Your task to perform on an android device: open app "PlayWell" (install if not already installed) and go to login screen Image 0: 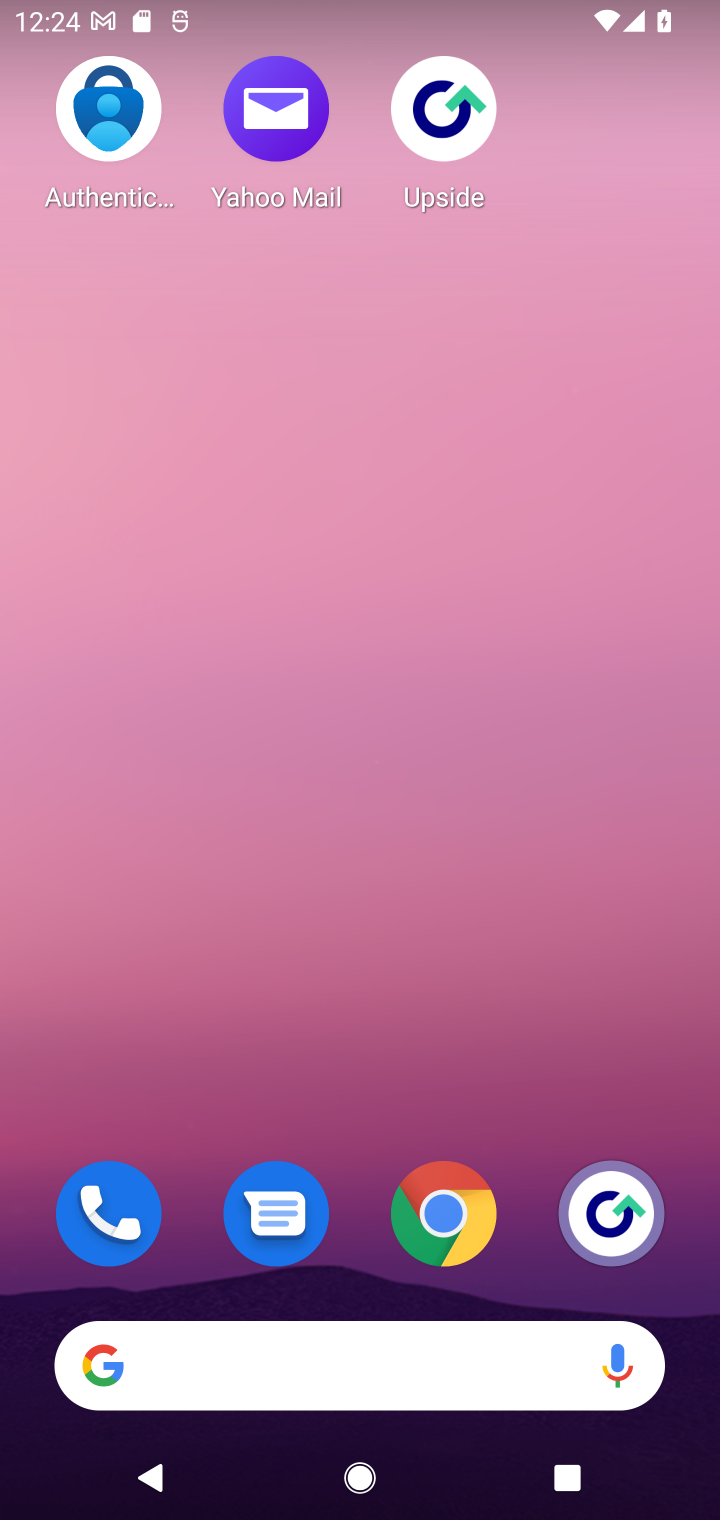
Step 0: drag from (336, 1384) to (249, 202)
Your task to perform on an android device: open app "PlayWell" (install if not already installed) and go to login screen Image 1: 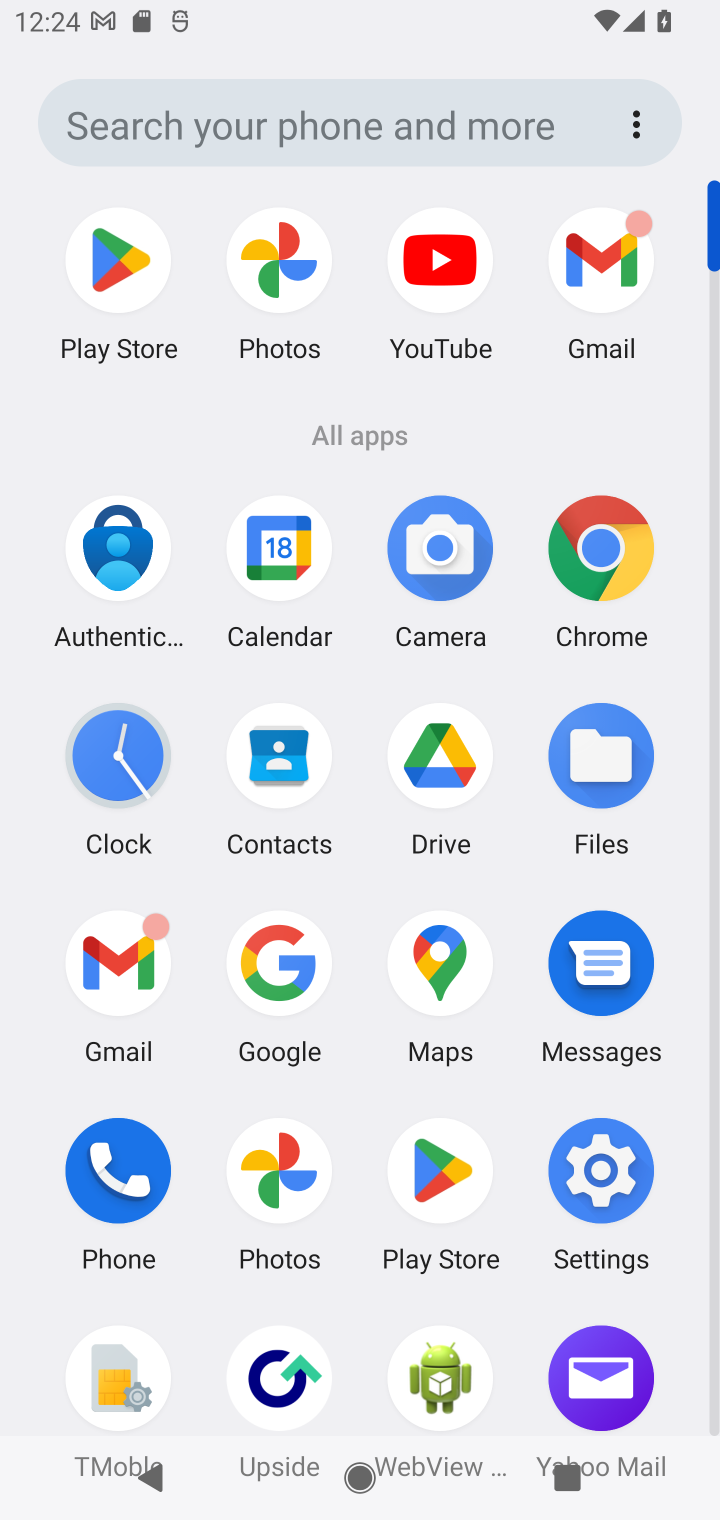
Step 1: click (116, 266)
Your task to perform on an android device: open app "PlayWell" (install if not already installed) and go to login screen Image 2: 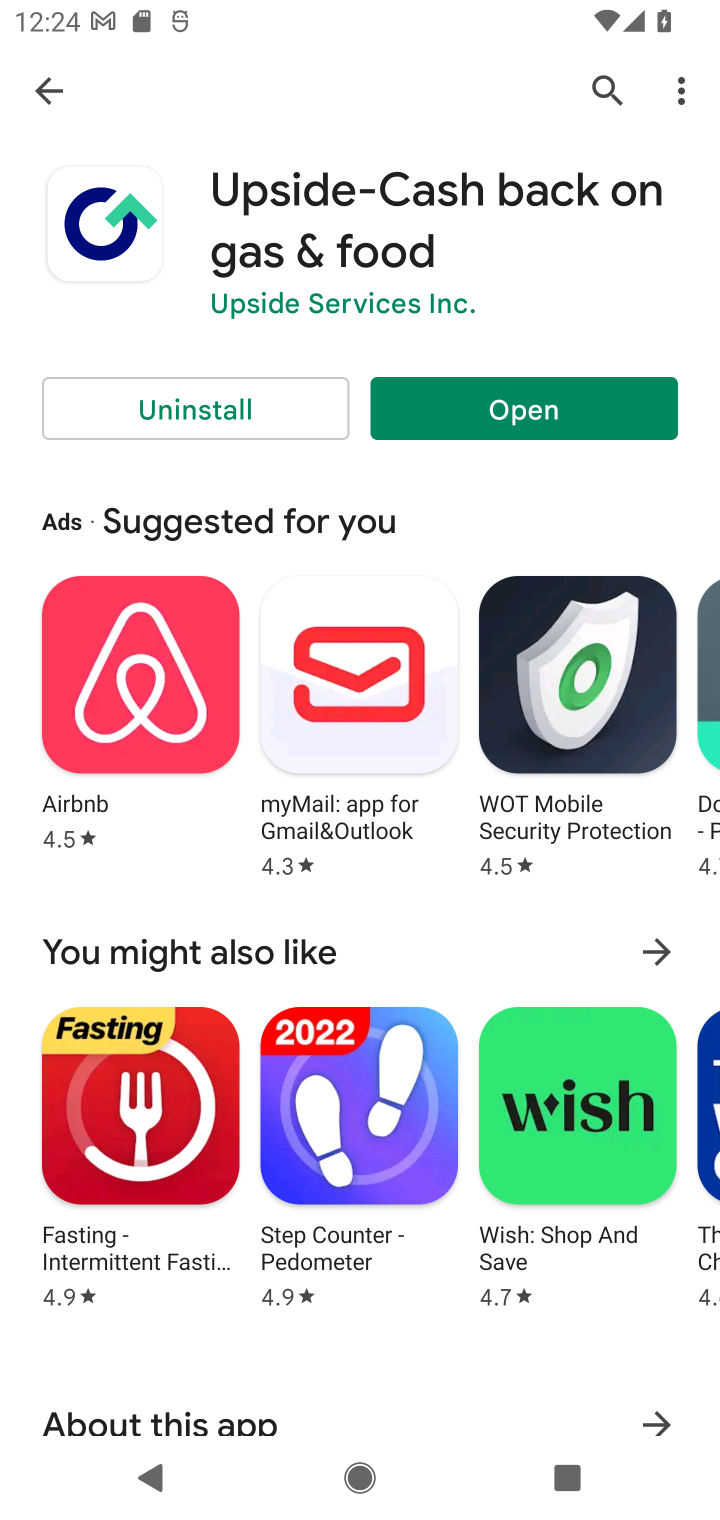
Step 2: press back button
Your task to perform on an android device: open app "PlayWell" (install if not already installed) and go to login screen Image 3: 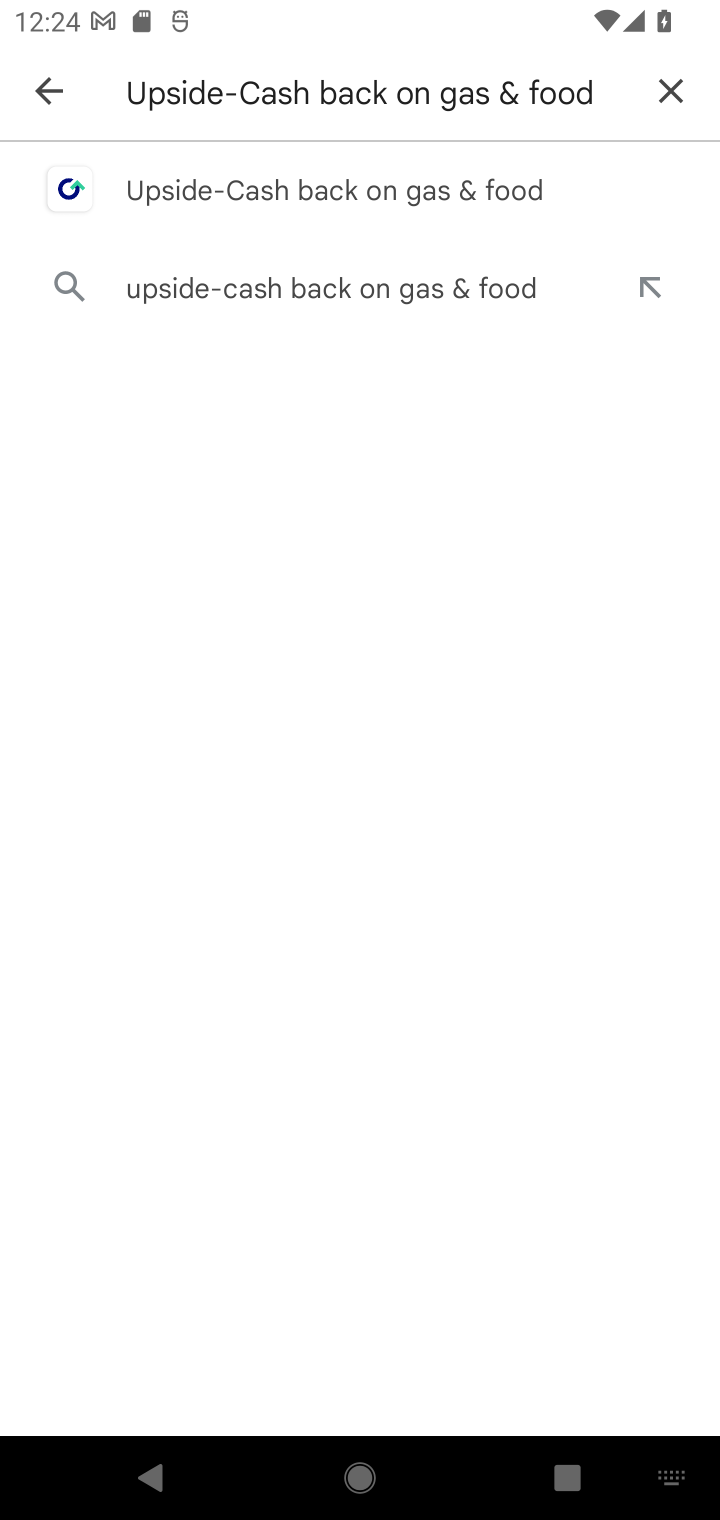
Step 3: click (672, 91)
Your task to perform on an android device: open app "PlayWell" (install if not already installed) and go to login screen Image 4: 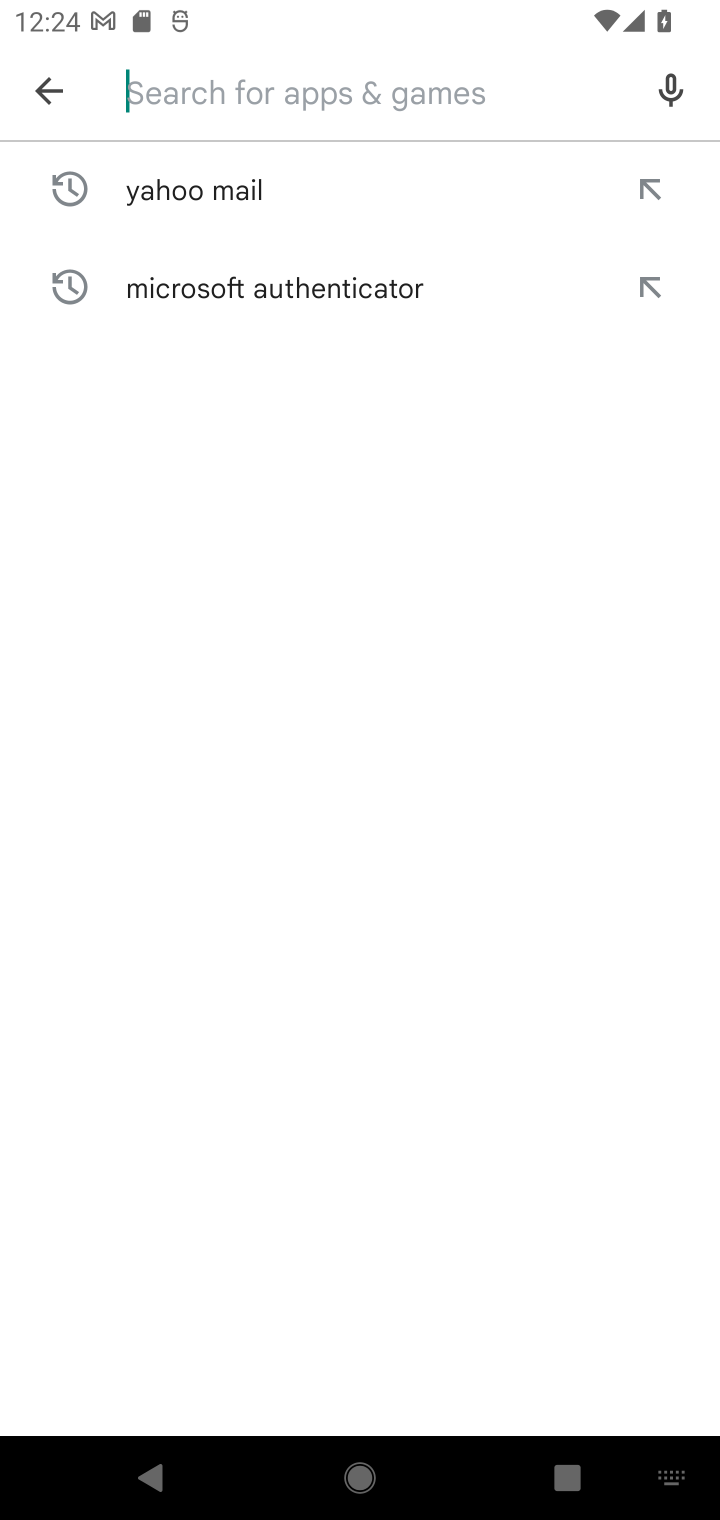
Step 4: press back button
Your task to perform on an android device: open app "PlayWell" (install if not already installed) and go to login screen Image 5: 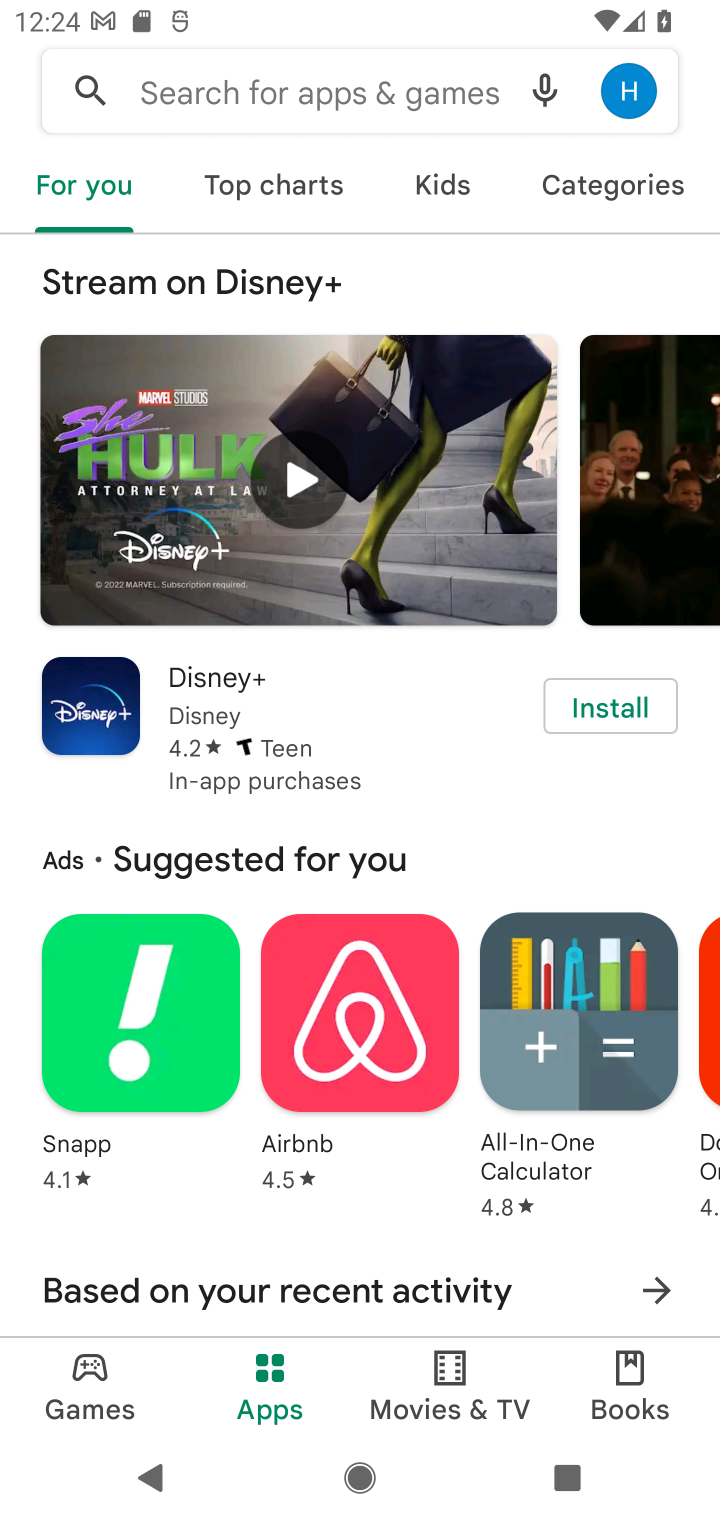
Step 5: press back button
Your task to perform on an android device: open app "PlayWell" (install if not already installed) and go to login screen Image 6: 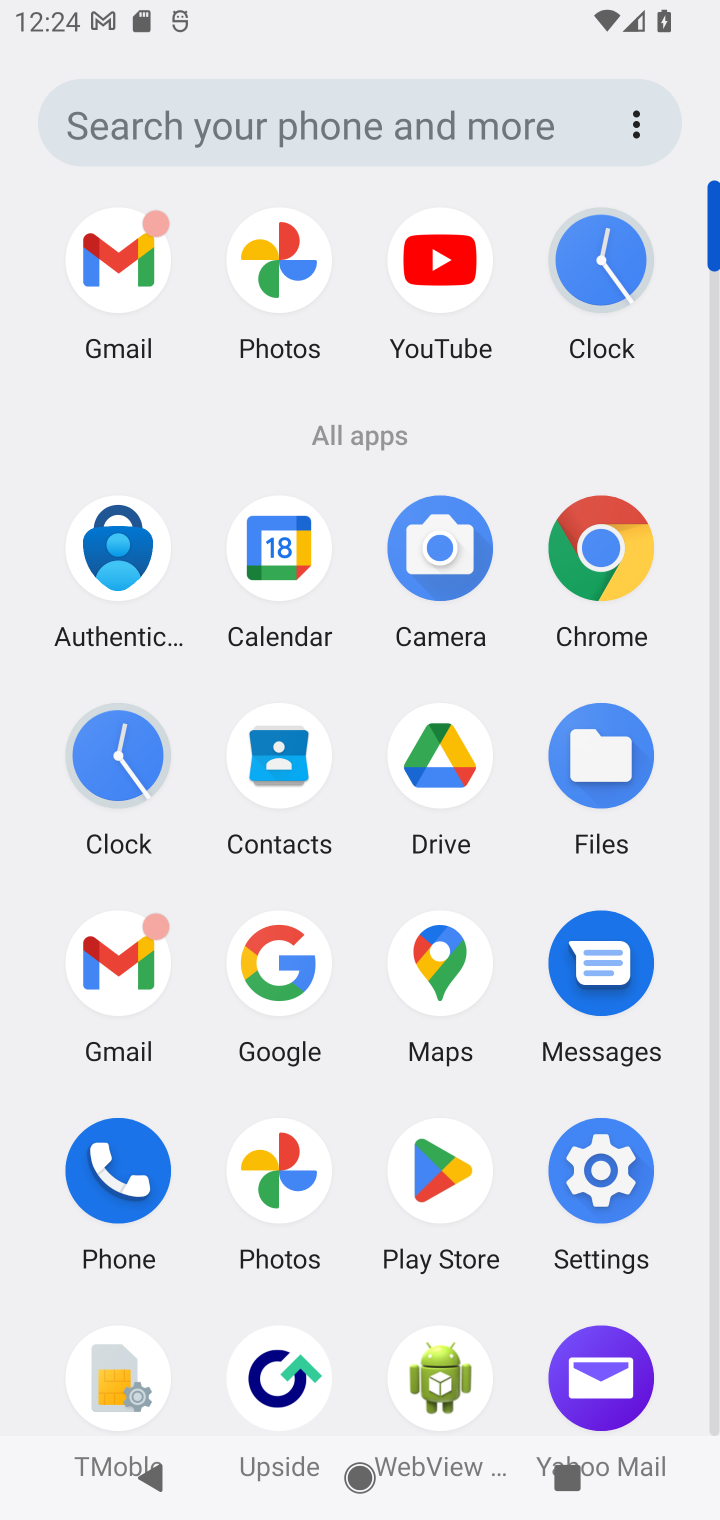
Step 6: click (454, 1175)
Your task to perform on an android device: open app "PlayWell" (install if not already installed) and go to login screen Image 7: 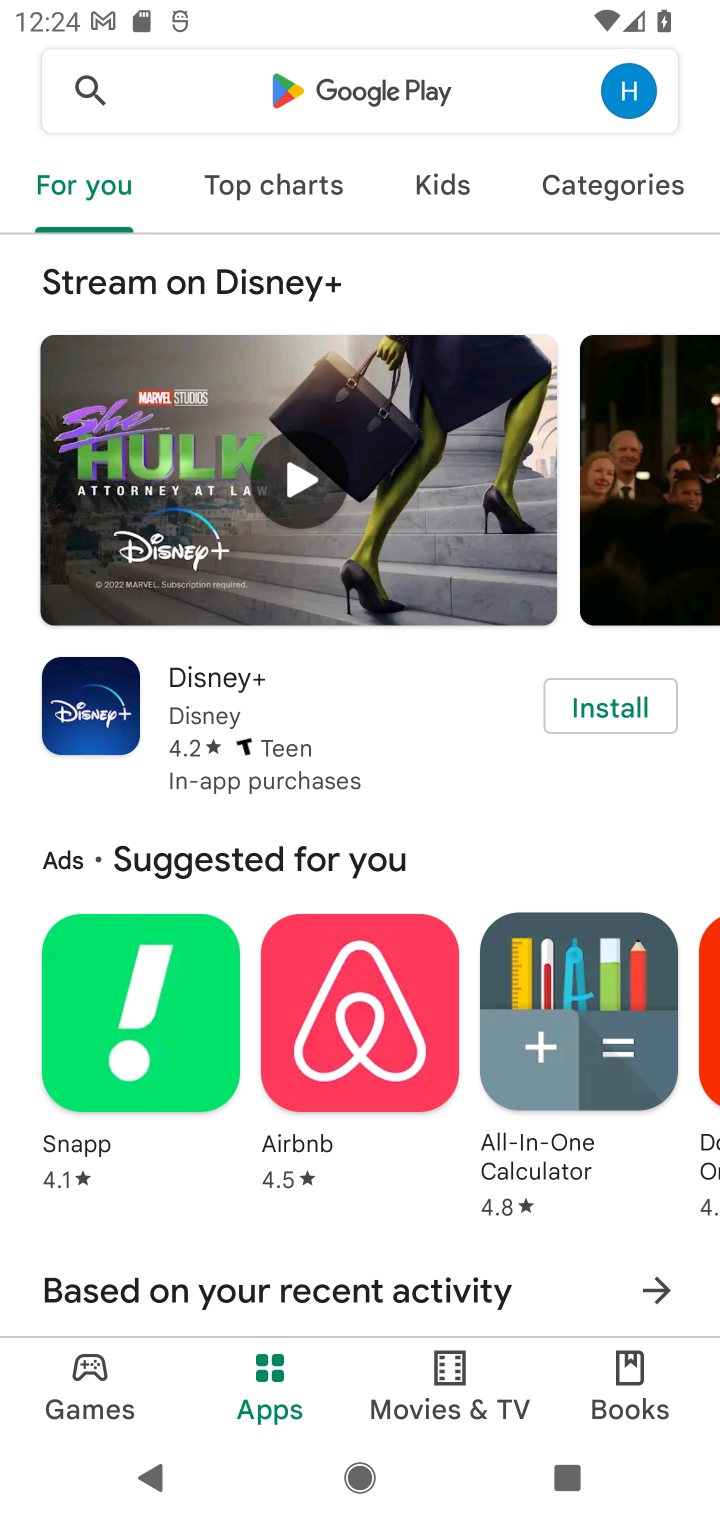
Step 7: click (364, 91)
Your task to perform on an android device: open app "PlayWell" (install if not already installed) and go to login screen Image 8: 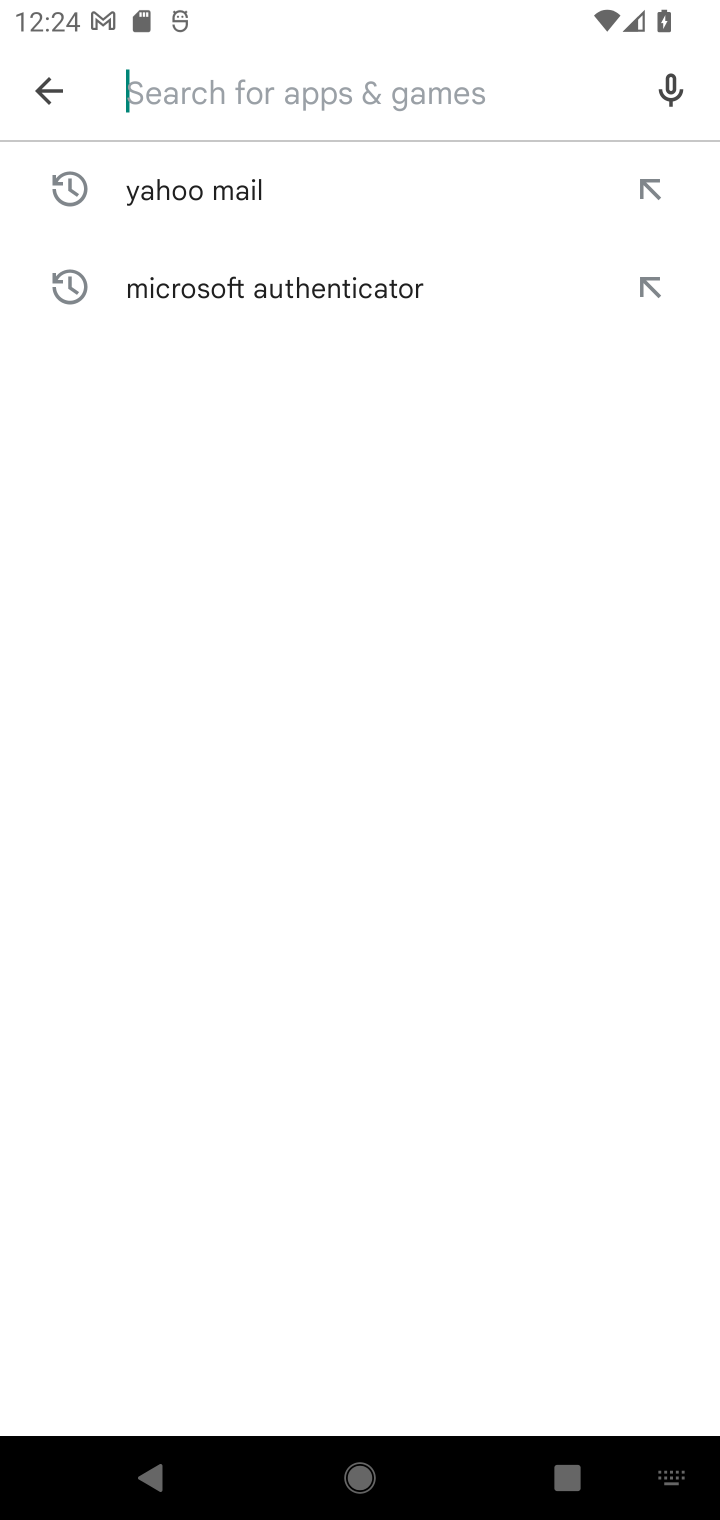
Step 8: type "PlayWell"
Your task to perform on an android device: open app "PlayWell" (install if not already installed) and go to login screen Image 9: 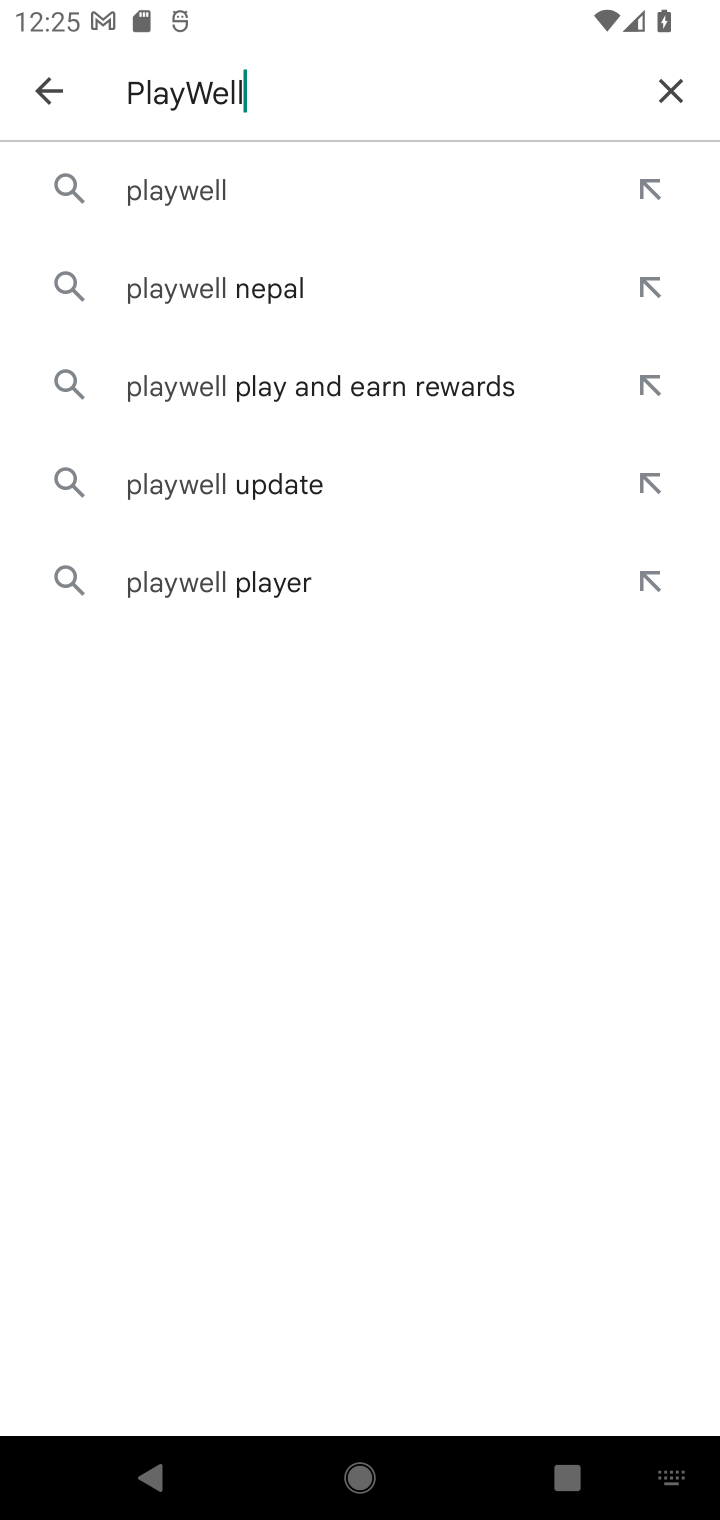
Step 9: click (153, 187)
Your task to perform on an android device: open app "PlayWell" (install if not already installed) and go to login screen Image 10: 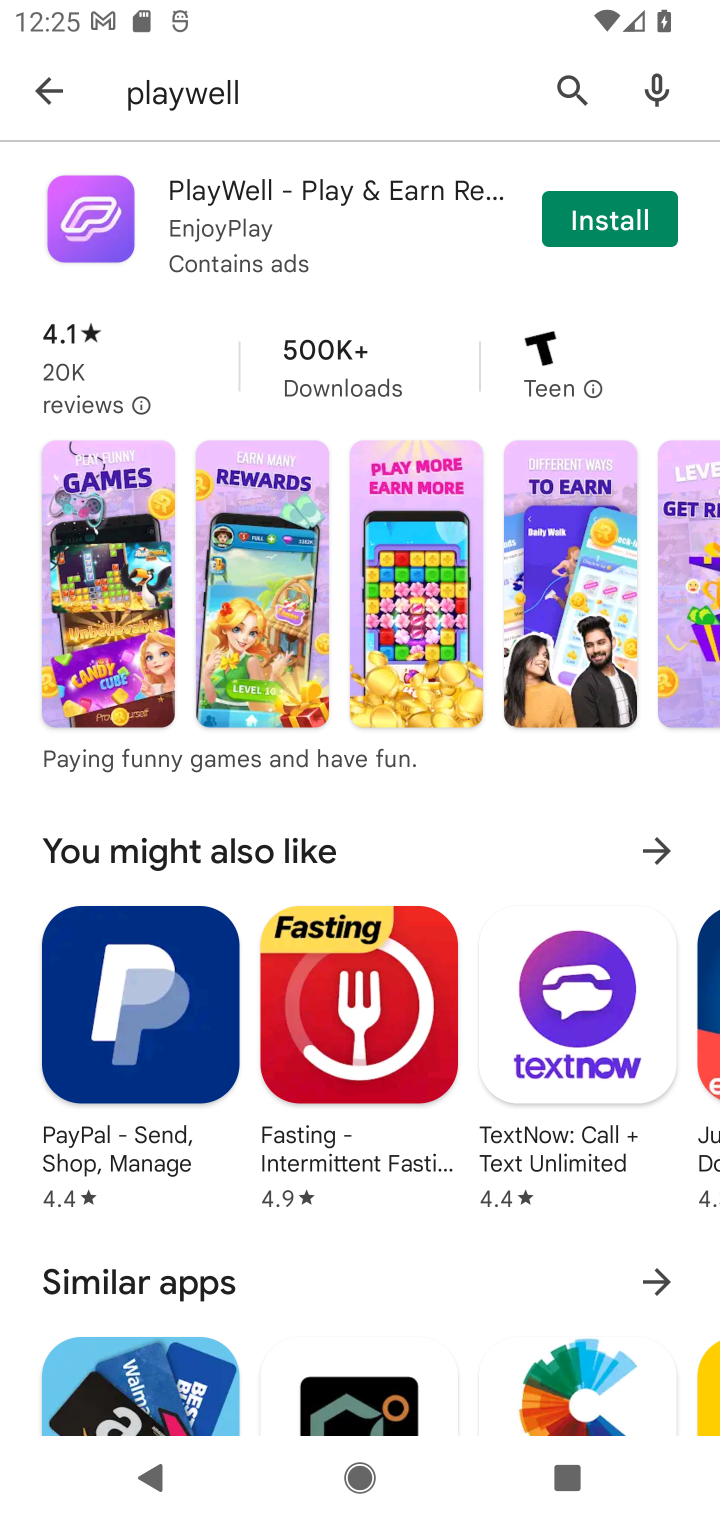
Step 10: click (625, 216)
Your task to perform on an android device: open app "PlayWell" (install if not already installed) and go to login screen Image 11: 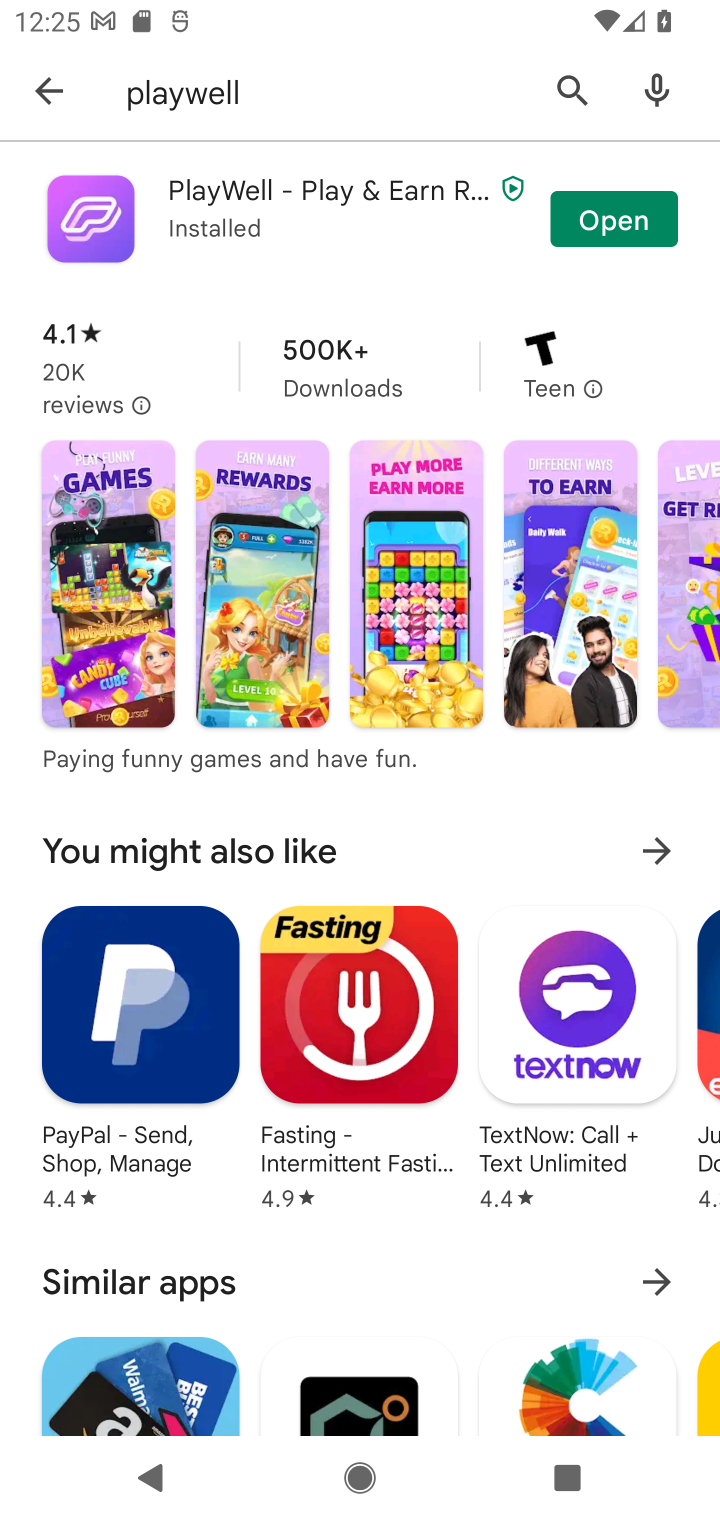
Step 11: click (611, 219)
Your task to perform on an android device: open app "PlayWell" (install if not already installed) and go to login screen Image 12: 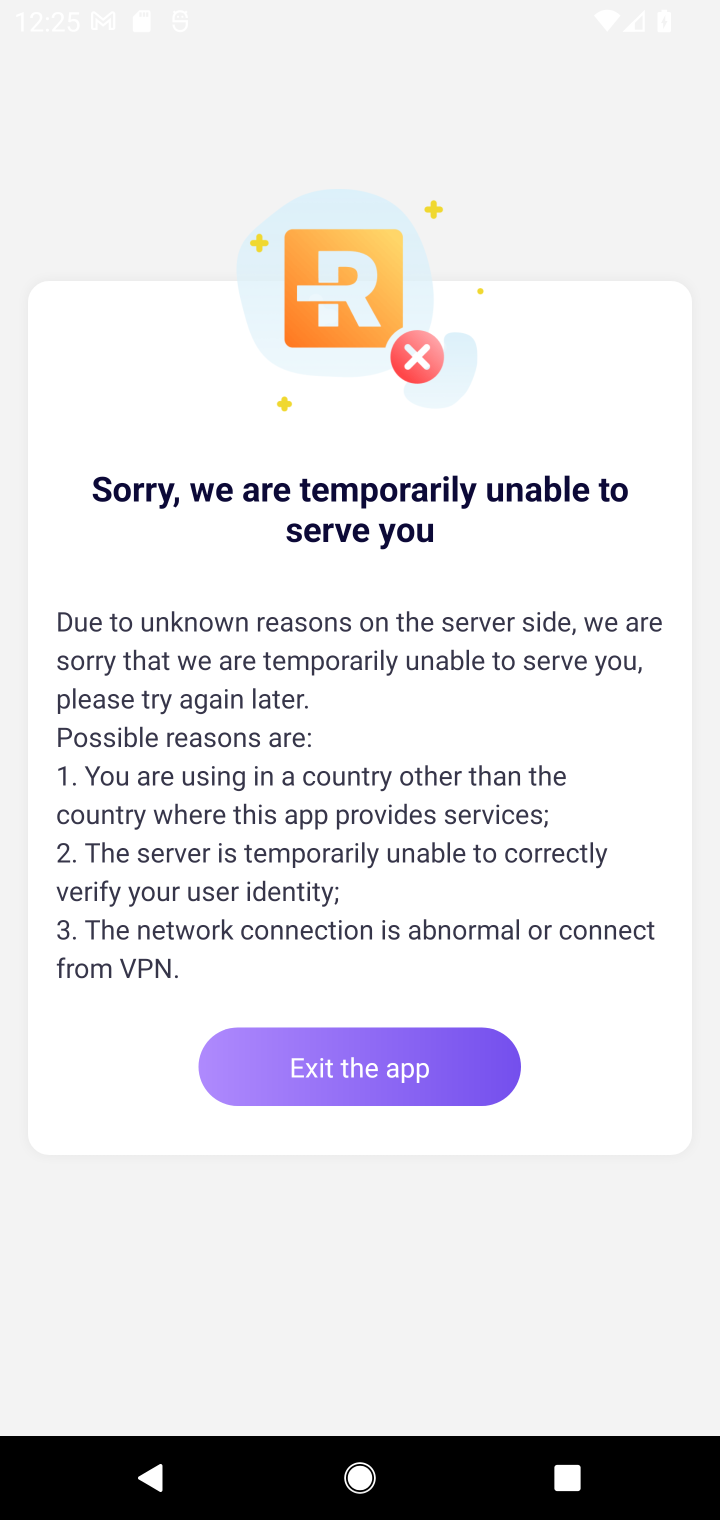
Step 12: task complete